Your task to perform on an android device: open device folders in google photos Image 0: 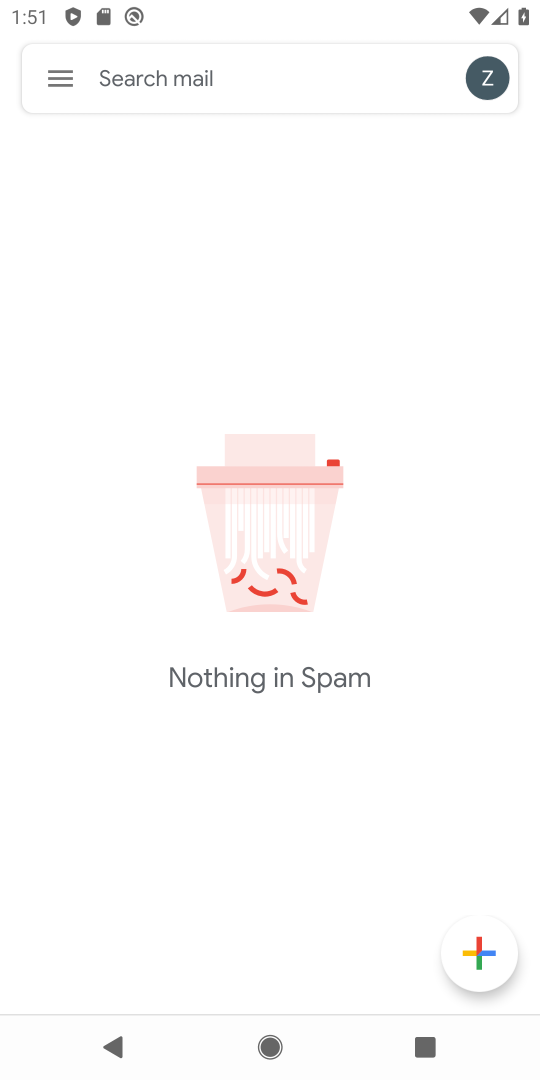
Step 0: press home button
Your task to perform on an android device: open device folders in google photos Image 1: 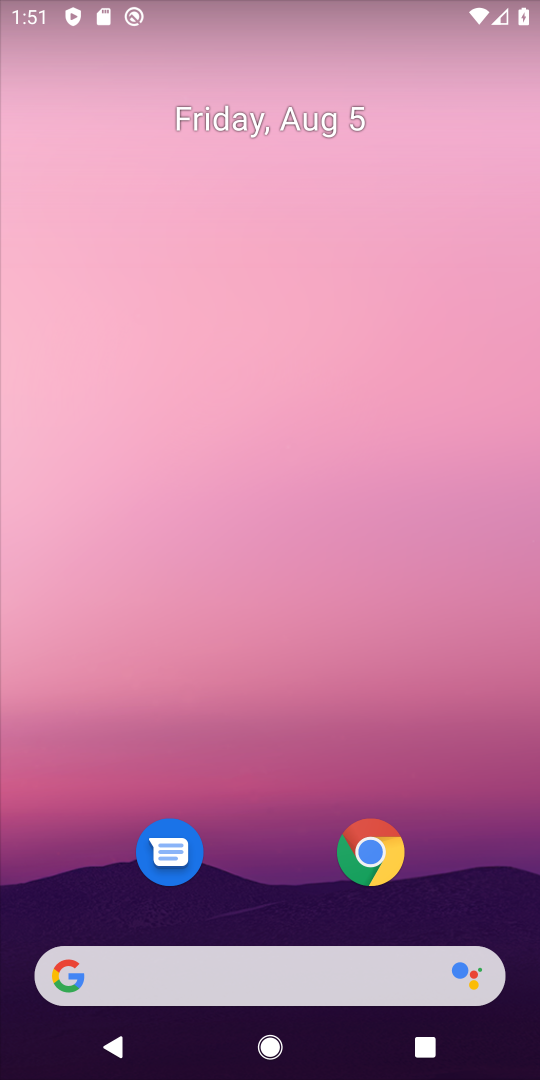
Step 1: drag from (256, 831) to (119, 9)
Your task to perform on an android device: open device folders in google photos Image 2: 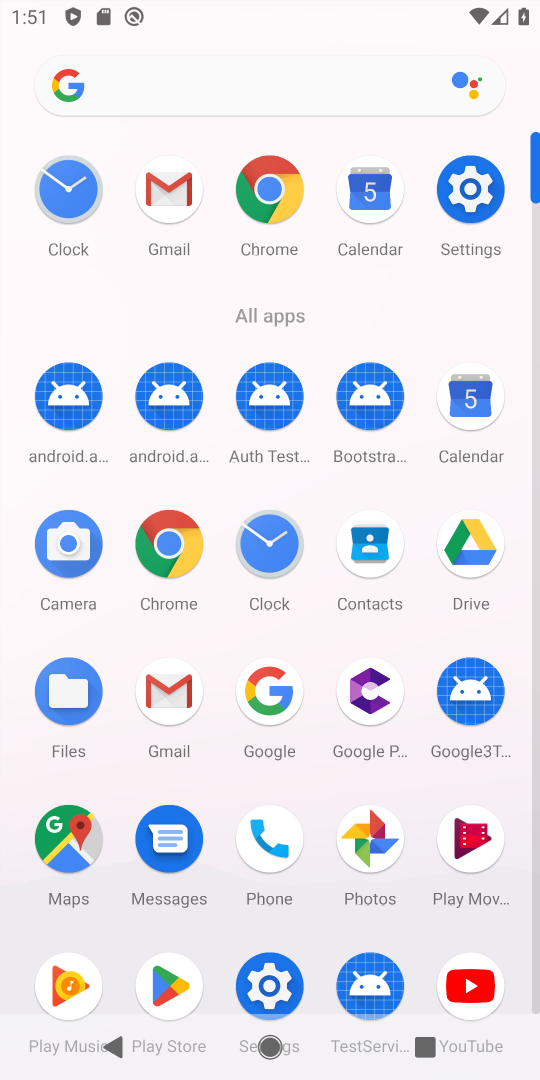
Step 2: click (362, 829)
Your task to perform on an android device: open device folders in google photos Image 3: 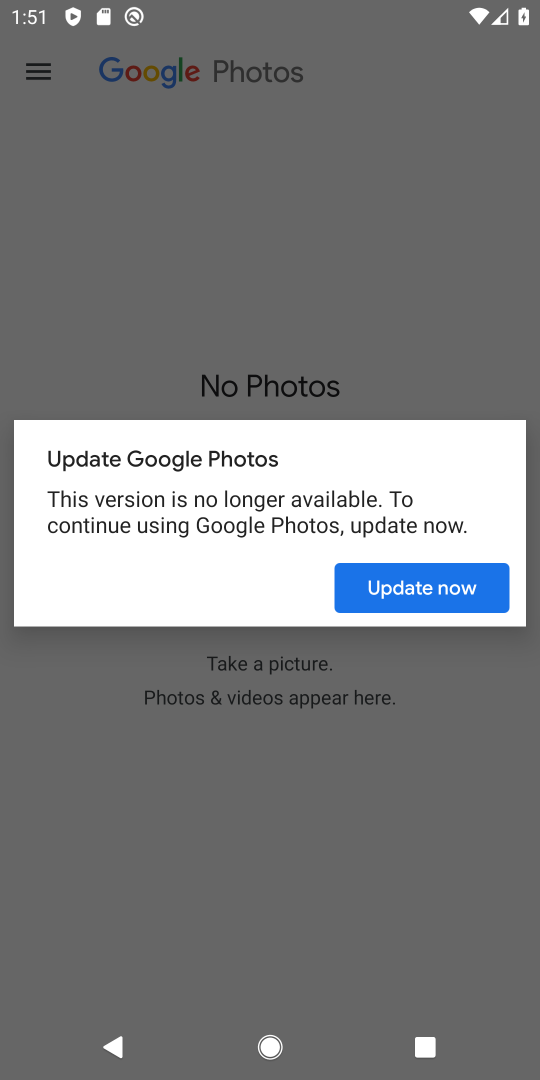
Step 3: click (359, 589)
Your task to perform on an android device: open device folders in google photos Image 4: 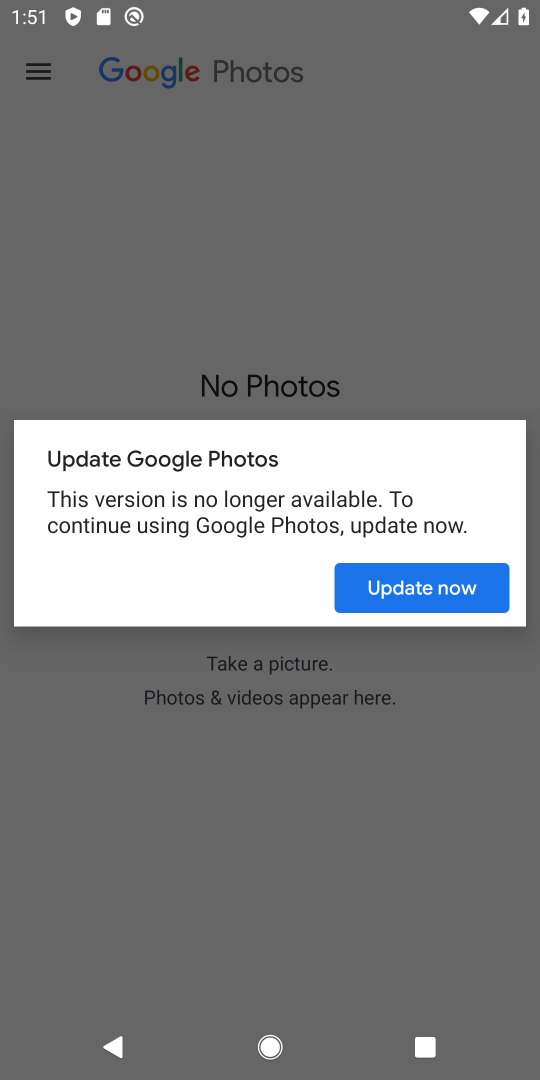
Step 4: click (359, 589)
Your task to perform on an android device: open device folders in google photos Image 5: 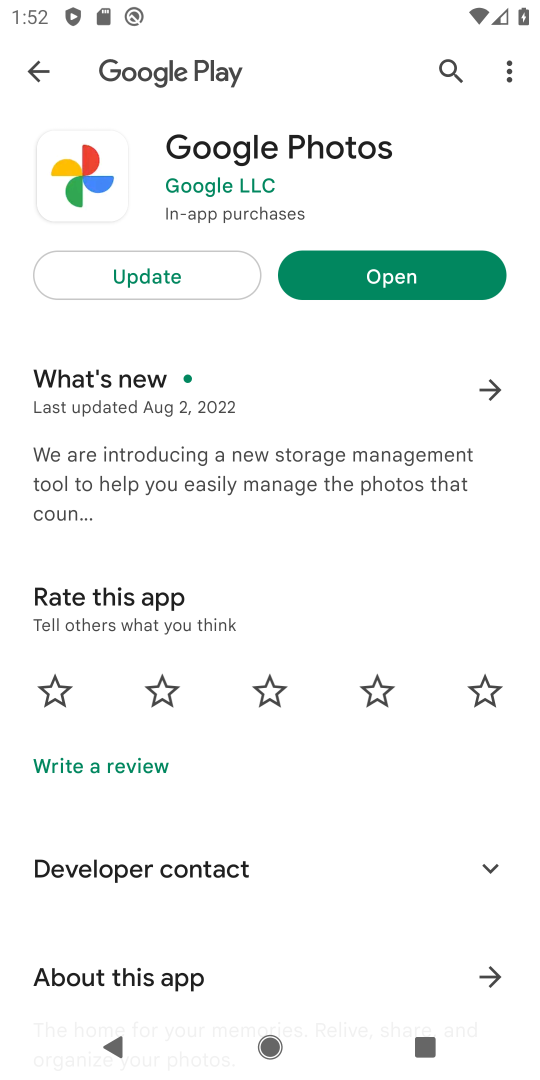
Step 5: click (88, 271)
Your task to perform on an android device: open device folders in google photos Image 6: 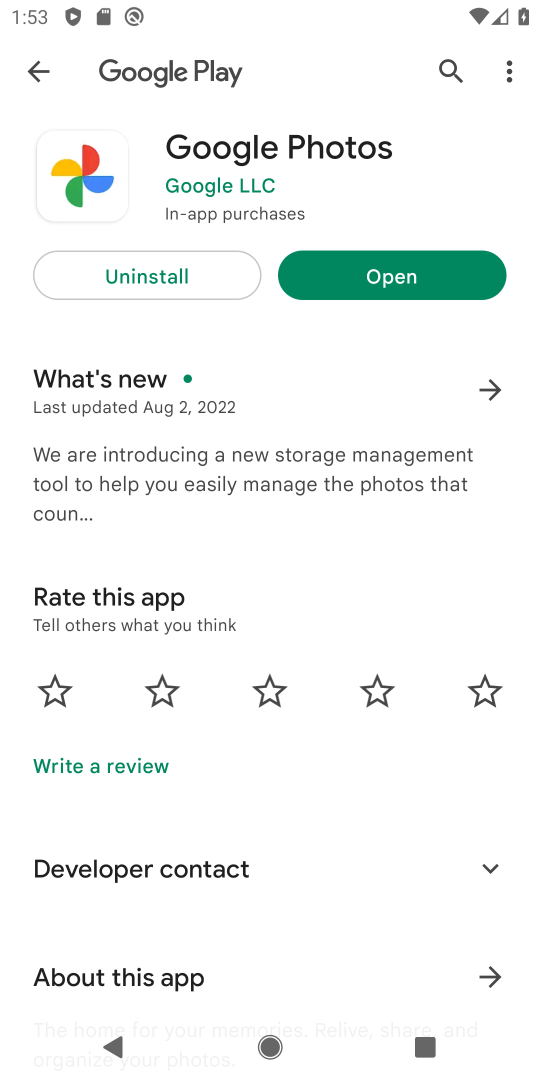
Step 6: click (319, 265)
Your task to perform on an android device: open device folders in google photos Image 7: 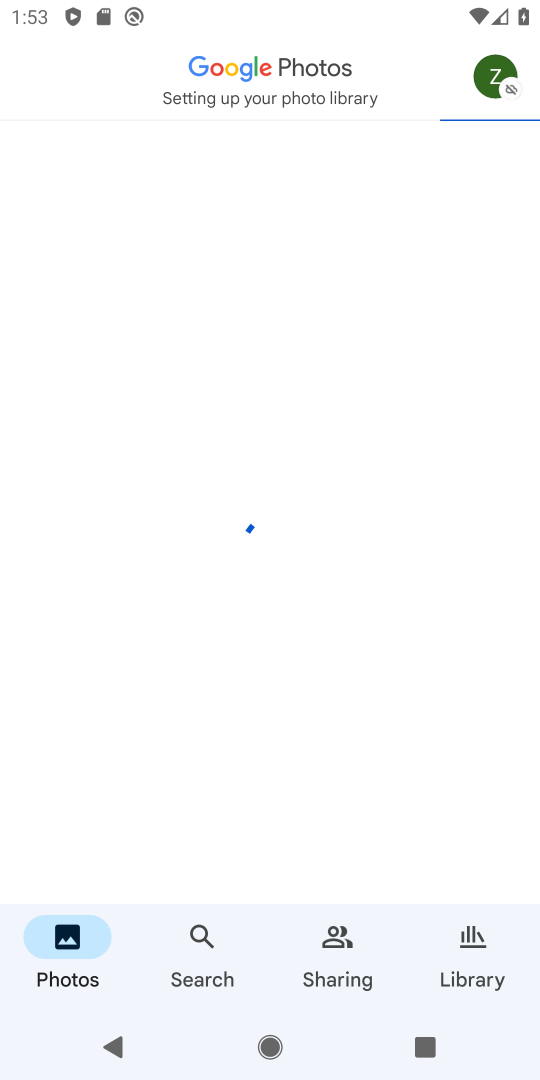
Step 7: click (209, 931)
Your task to perform on an android device: open device folders in google photos Image 8: 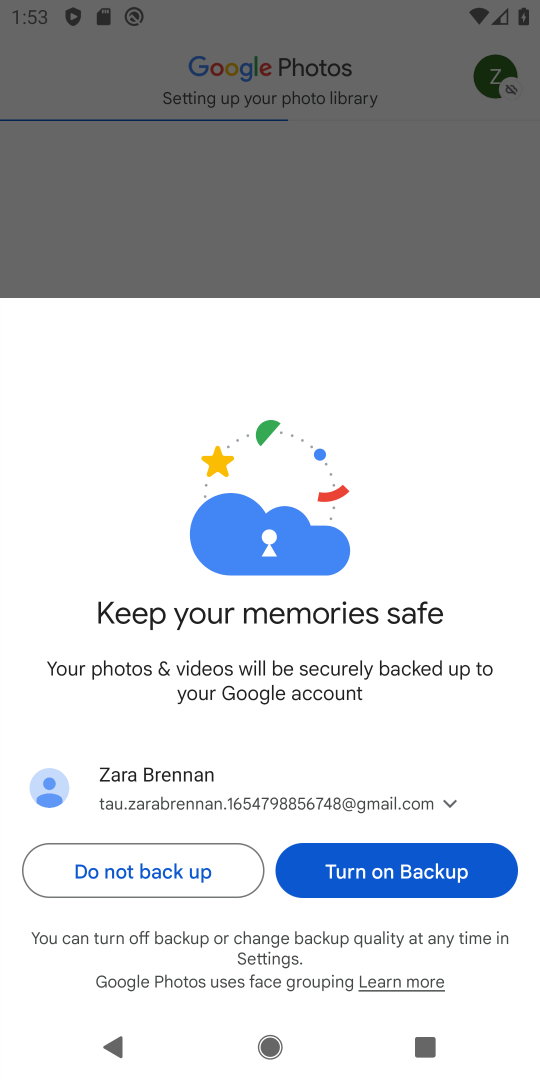
Step 8: click (108, 877)
Your task to perform on an android device: open device folders in google photos Image 9: 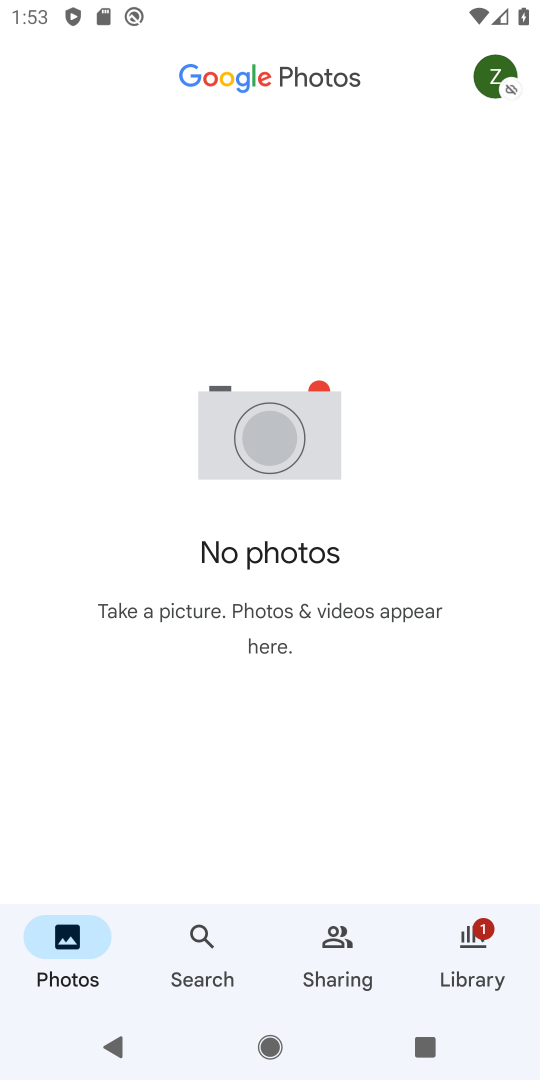
Step 9: click (194, 931)
Your task to perform on an android device: open device folders in google photos Image 10: 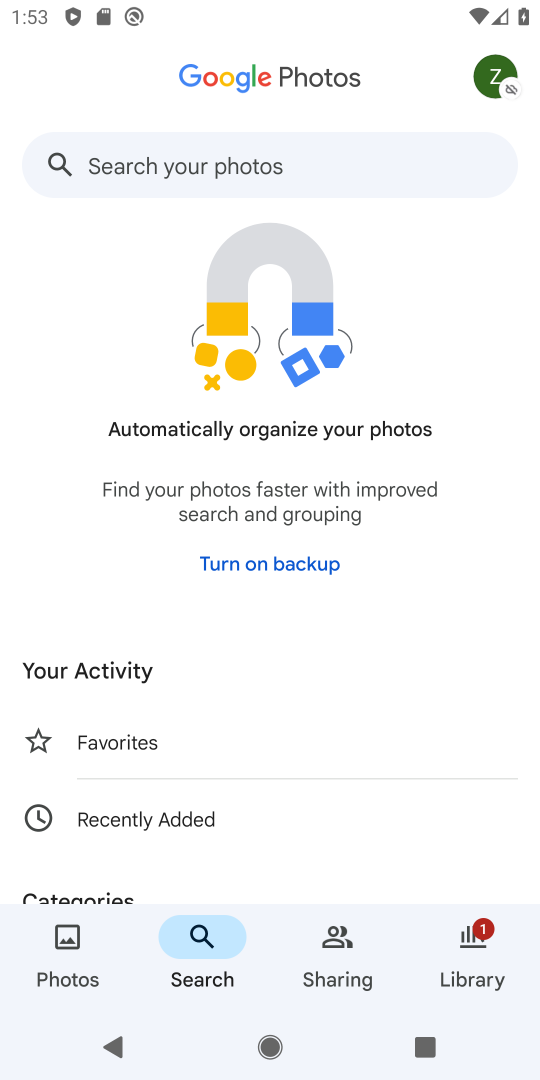
Step 10: click (159, 169)
Your task to perform on an android device: open device folders in google photos Image 11: 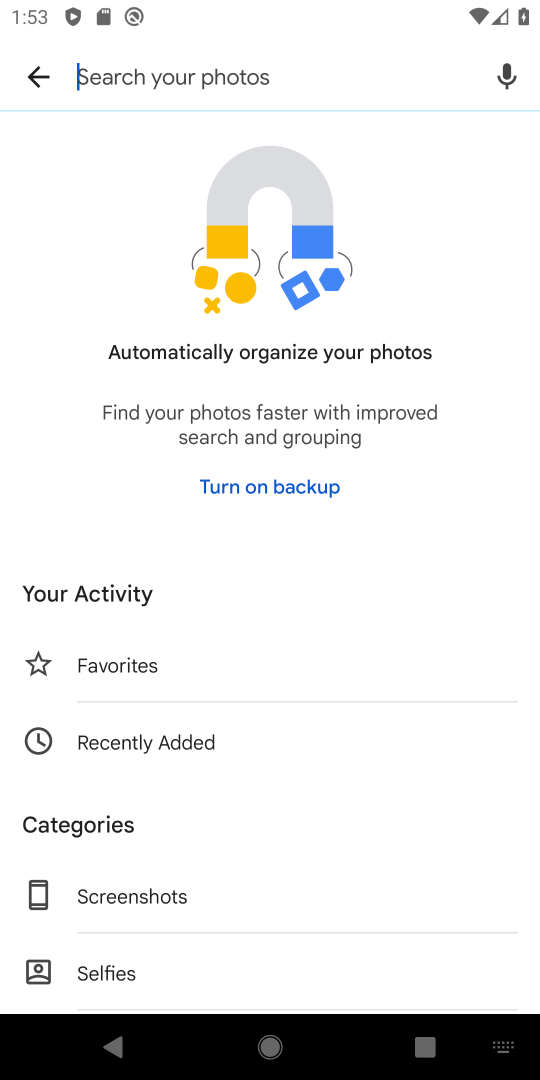
Step 11: type "device"
Your task to perform on an android device: open device folders in google photos Image 12: 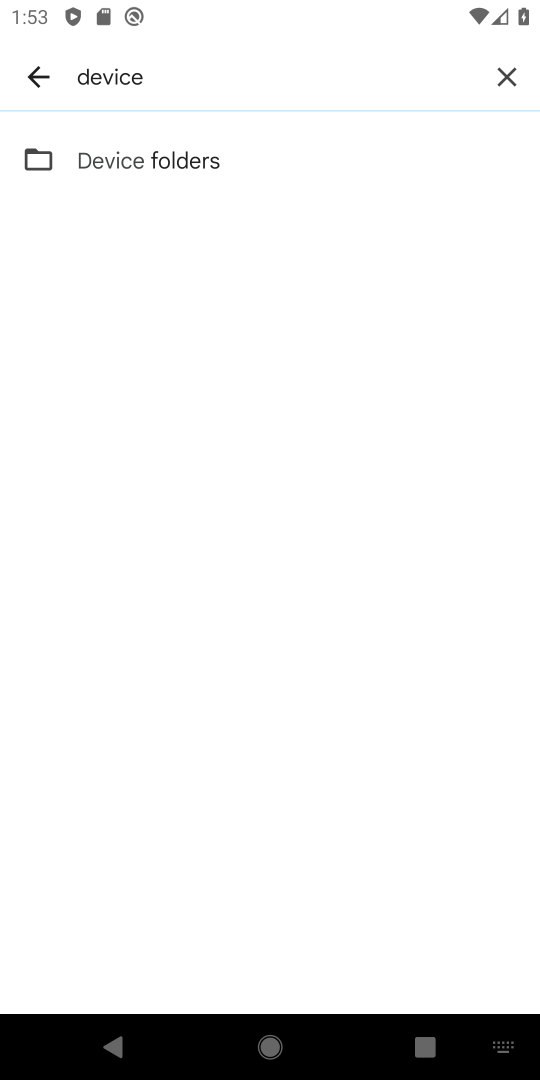
Step 12: click (104, 159)
Your task to perform on an android device: open device folders in google photos Image 13: 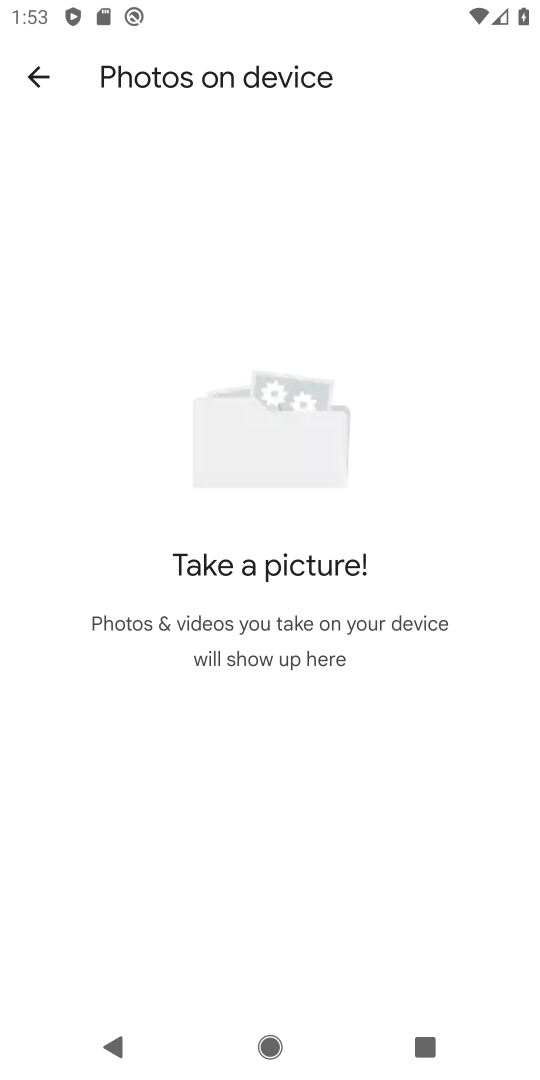
Step 13: task complete